Your task to perform on an android device: change timer sound Image 0: 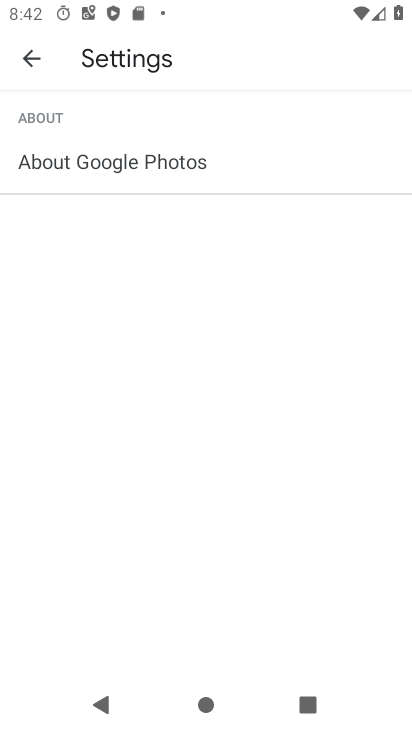
Step 0: press home button
Your task to perform on an android device: change timer sound Image 1: 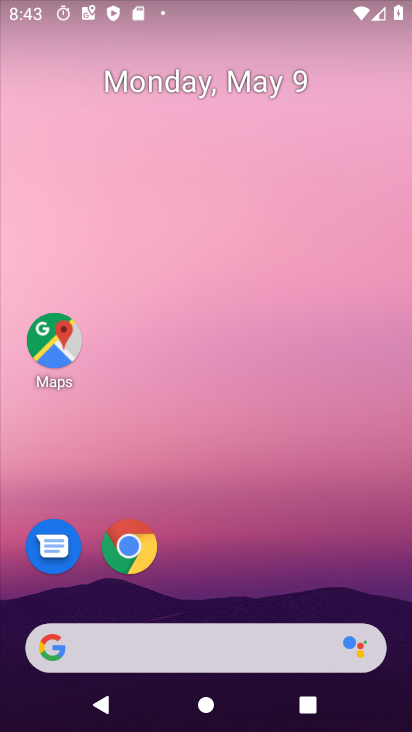
Step 1: drag from (272, 549) to (308, 115)
Your task to perform on an android device: change timer sound Image 2: 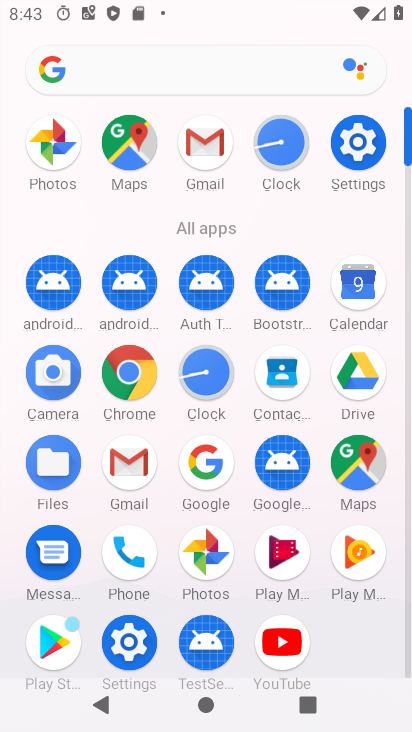
Step 2: click (274, 157)
Your task to perform on an android device: change timer sound Image 3: 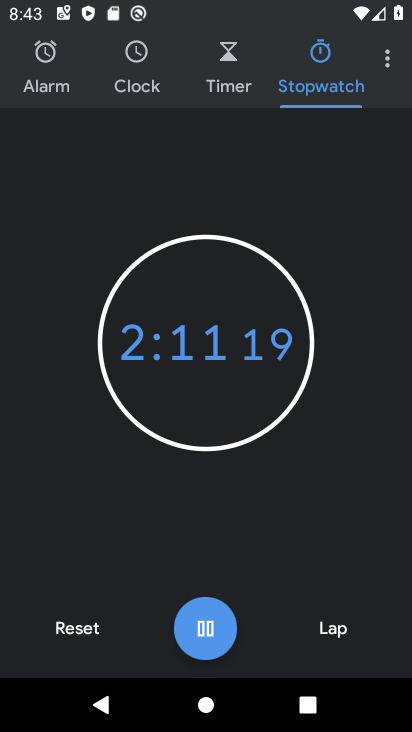
Step 3: click (388, 59)
Your task to perform on an android device: change timer sound Image 4: 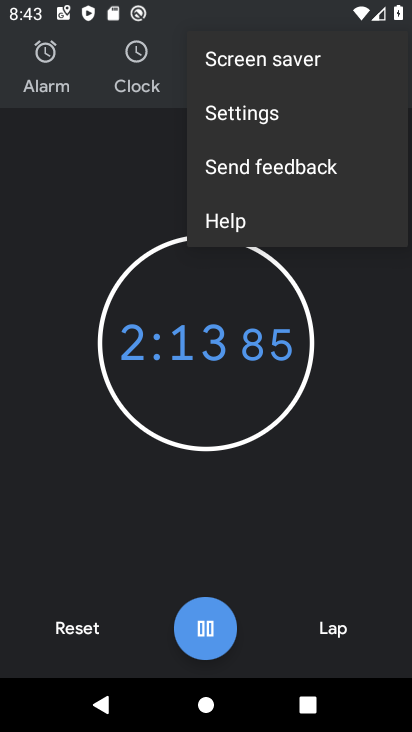
Step 4: click (251, 124)
Your task to perform on an android device: change timer sound Image 5: 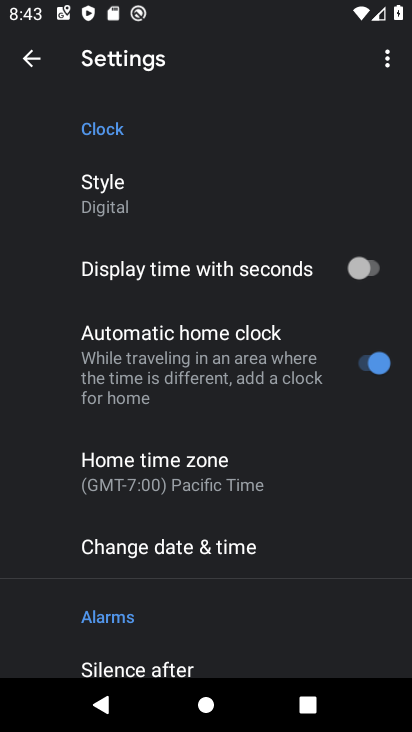
Step 5: drag from (290, 572) to (295, 166)
Your task to perform on an android device: change timer sound Image 6: 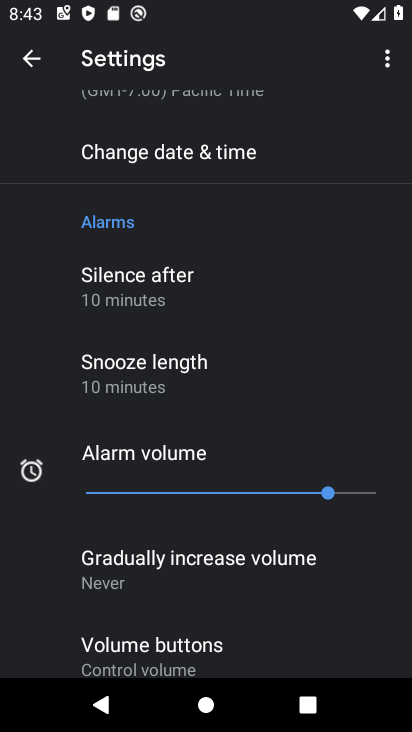
Step 6: drag from (260, 604) to (305, 209)
Your task to perform on an android device: change timer sound Image 7: 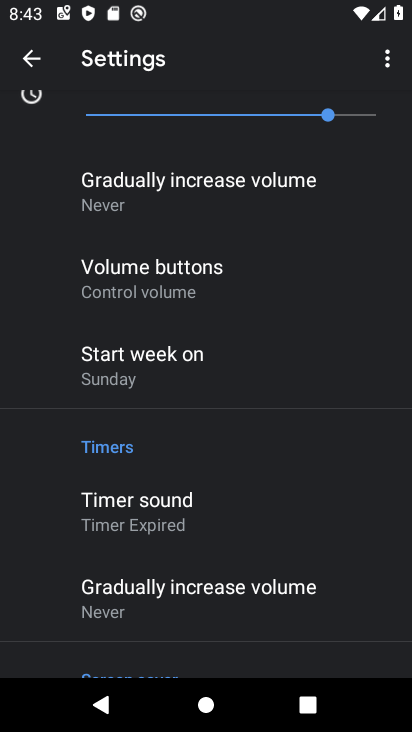
Step 7: click (118, 520)
Your task to perform on an android device: change timer sound Image 8: 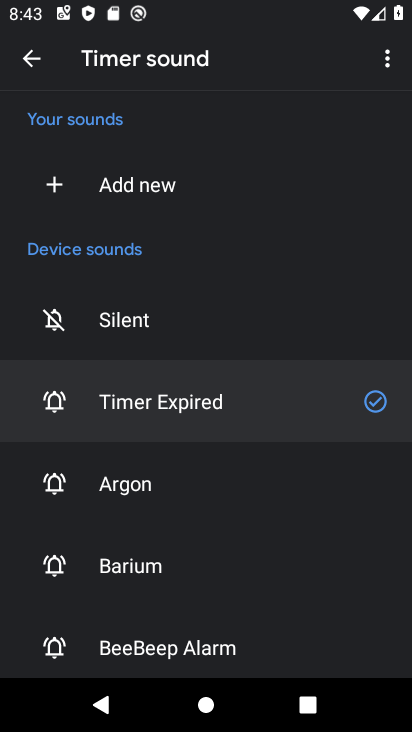
Step 8: click (127, 491)
Your task to perform on an android device: change timer sound Image 9: 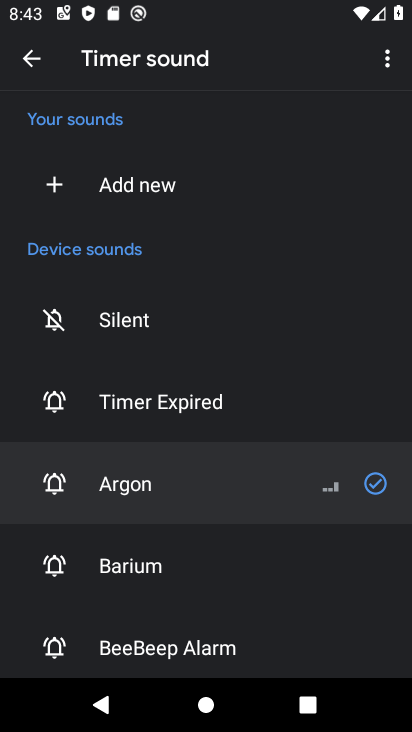
Step 9: click (368, 477)
Your task to perform on an android device: change timer sound Image 10: 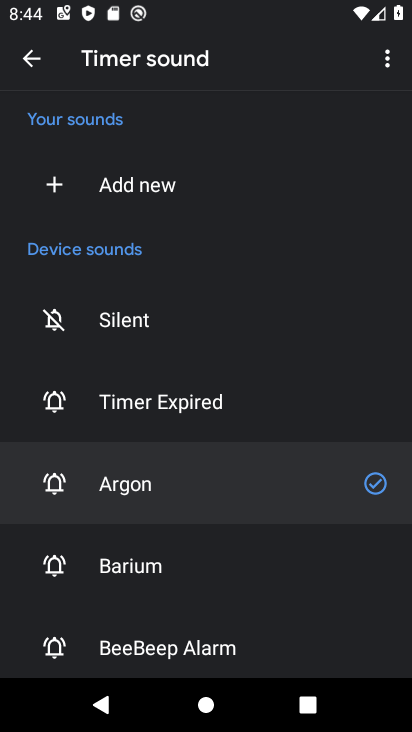
Step 10: task complete